Your task to perform on an android device: Go to calendar. Show me events next week Image 0: 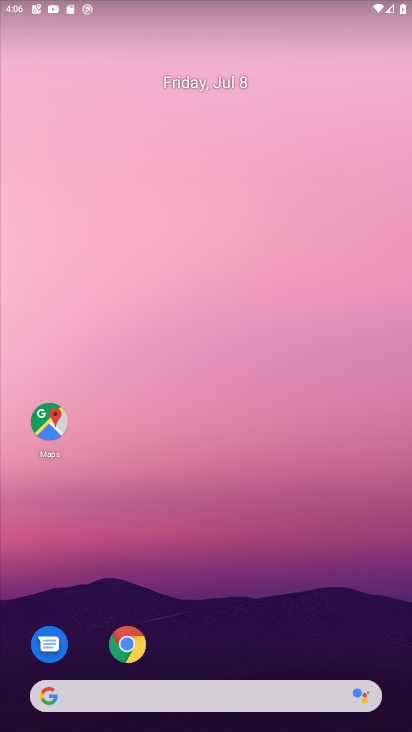
Step 0: drag from (365, 648) to (316, 227)
Your task to perform on an android device: Go to calendar. Show me events next week Image 1: 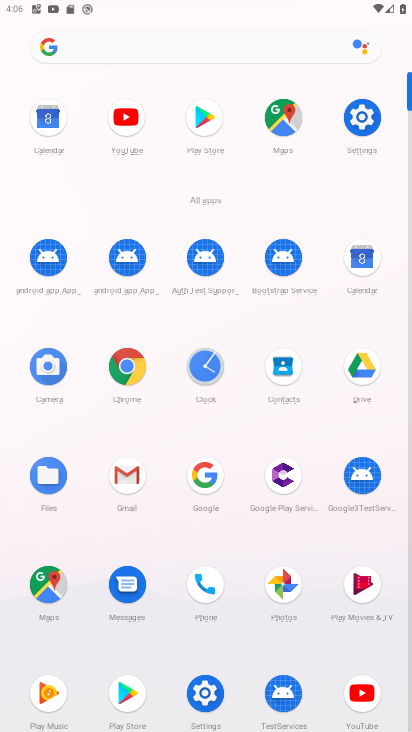
Step 1: click (361, 259)
Your task to perform on an android device: Go to calendar. Show me events next week Image 2: 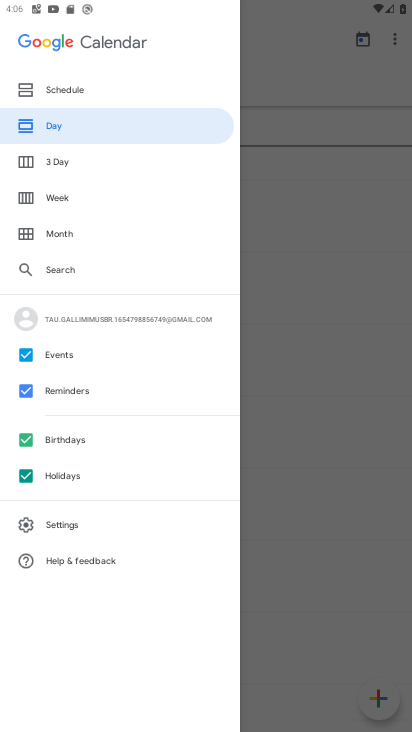
Step 2: click (51, 200)
Your task to perform on an android device: Go to calendar. Show me events next week Image 3: 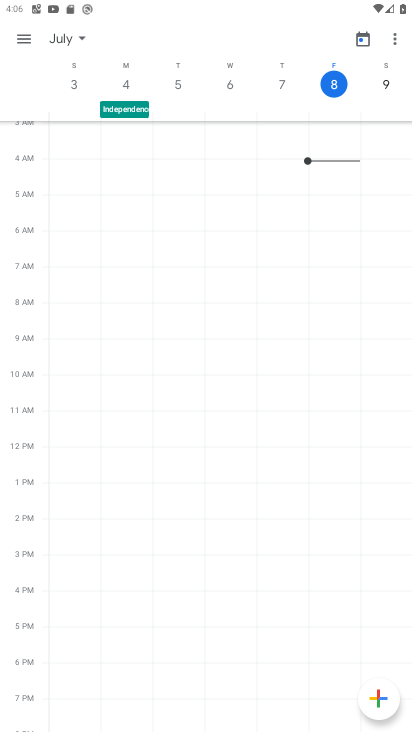
Step 3: click (78, 37)
Your task to perform on an android device: Go to calendar. Show me events next week Image 4: 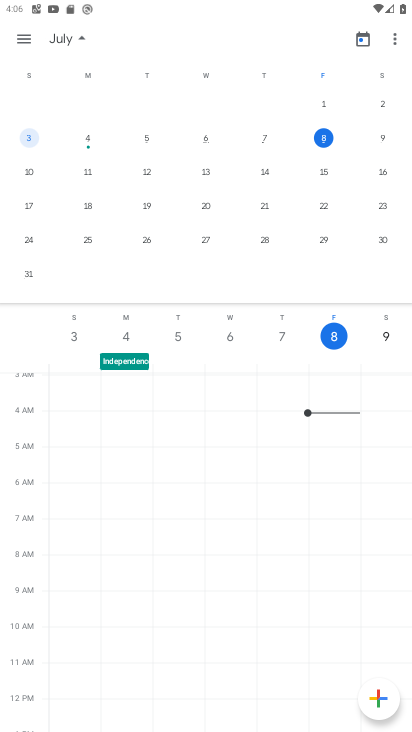
Step 4: click (31, 175)
Your task to perform on an android device: Go to calendar. Show me events next week Image 5: 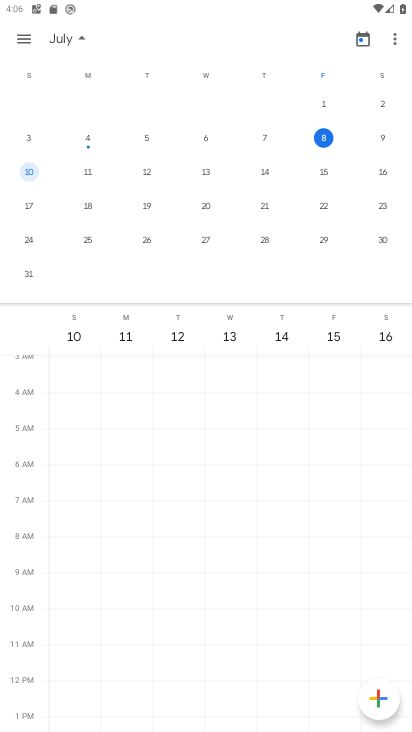
Step 5: task complete